Your task to perform on an android device: uninstall "Pandora - Music & Podcasts" Image 0: 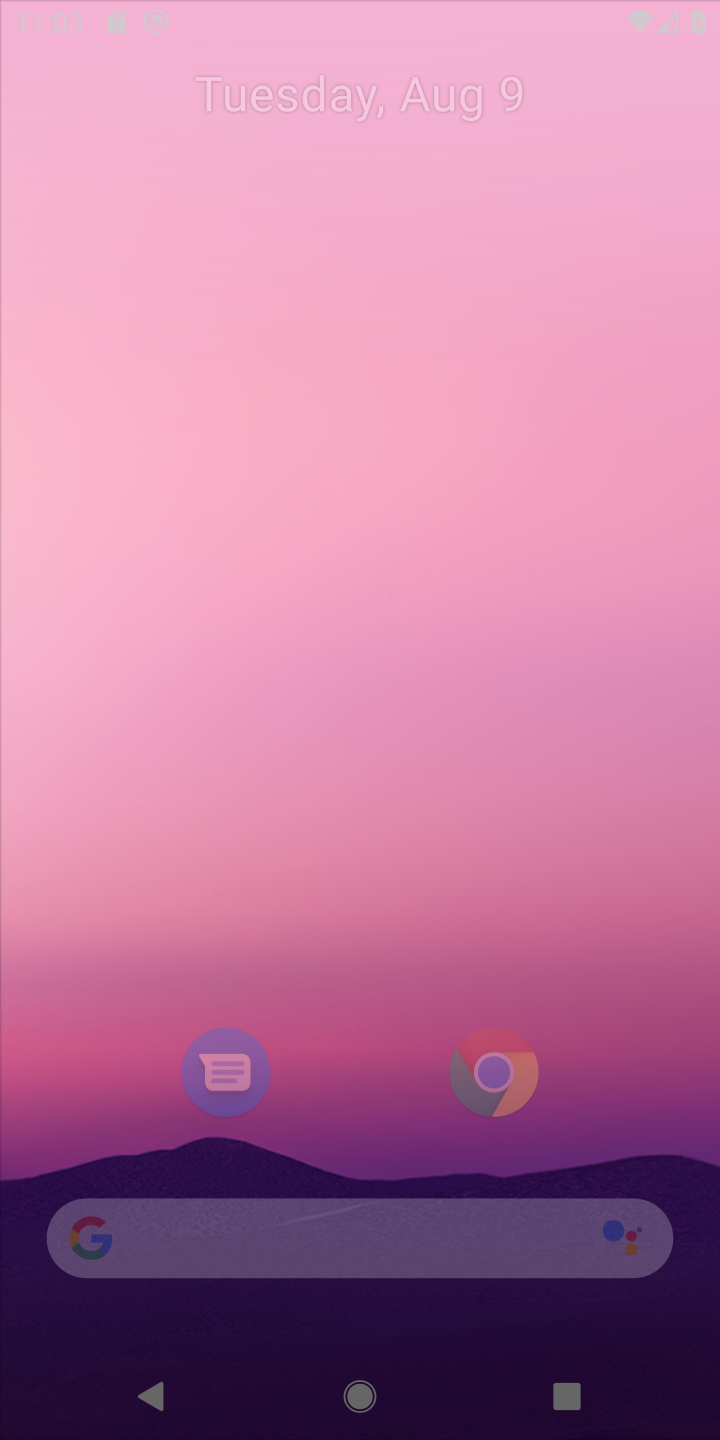
Step 0: click (404, 531)
Your task to perform on an android device: uninstall "Pandora - Music & Podcasts" Image 1: 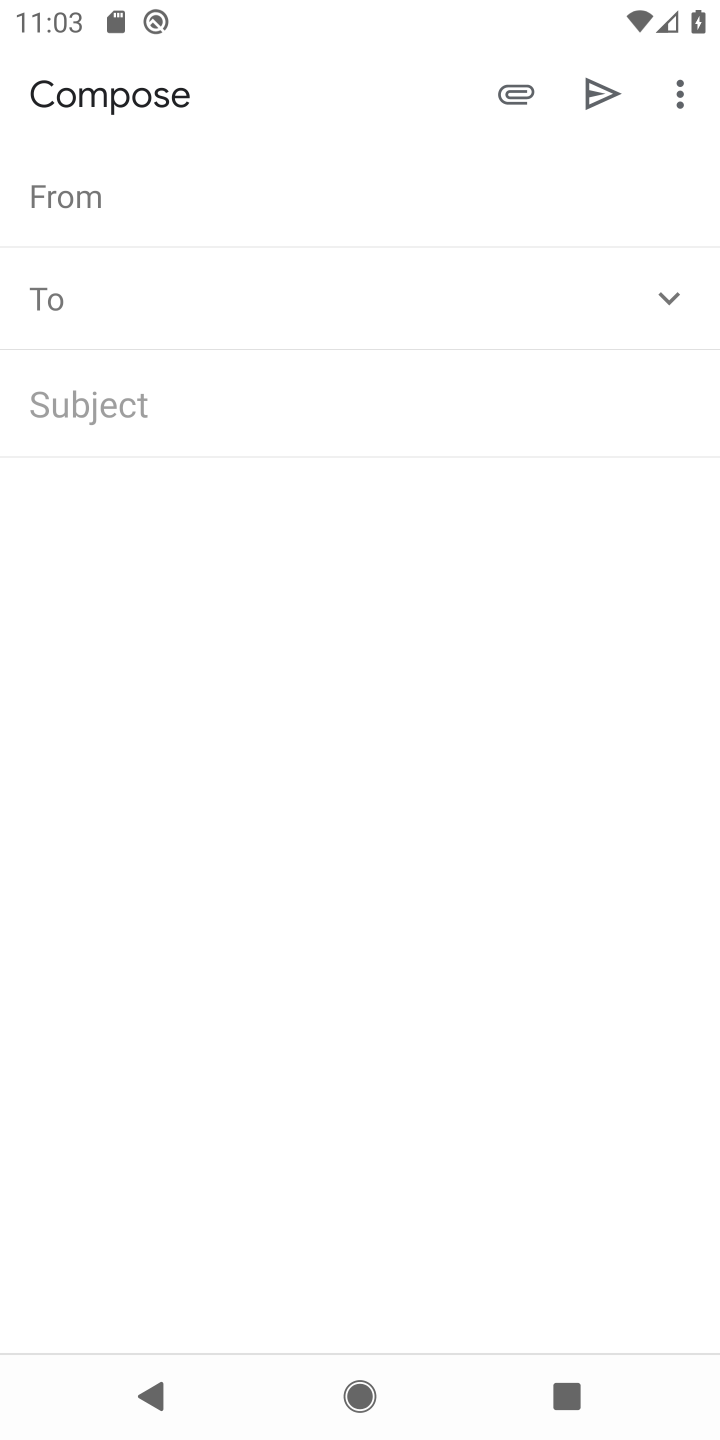
Step 1: press home button
Your task to perform on an android device: uninstall "Pandora - Music & Podcasts" Image 2: 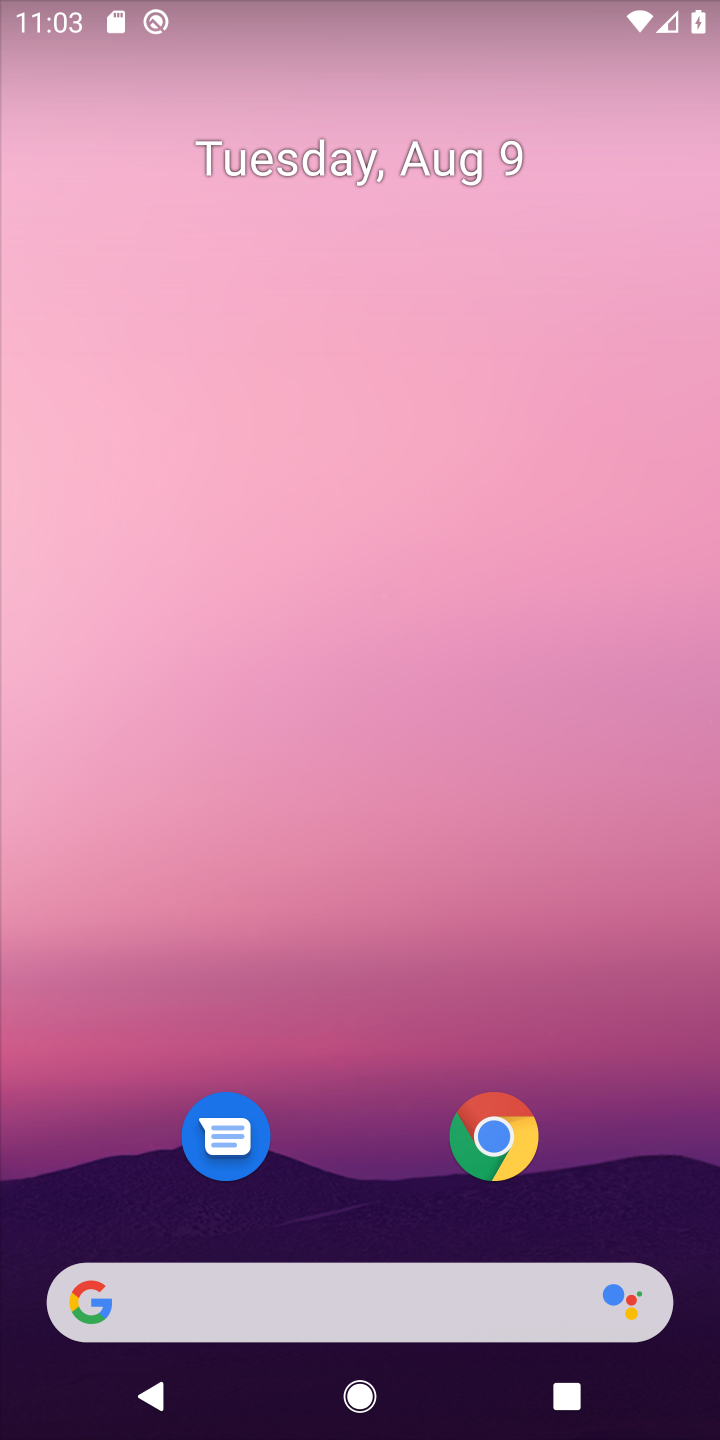
Step 2: drag from (350, 1088) to (413, 154)
Your task to perform on an android device: uninstall "Pandora - Music & Podcasts" Image 3: 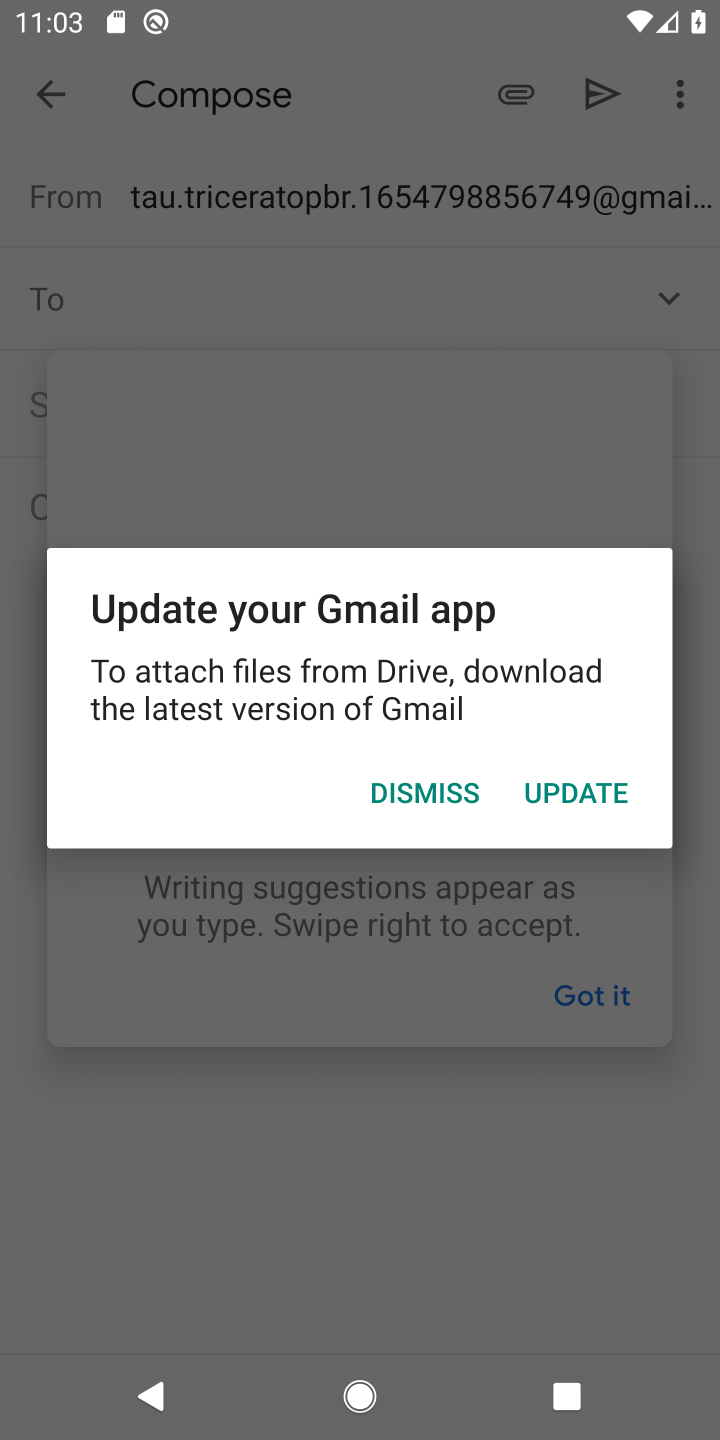
Step 3: press home button
Your task to perform on an android device: uninstall "Pandora - Music & Podcasts" Image 4: 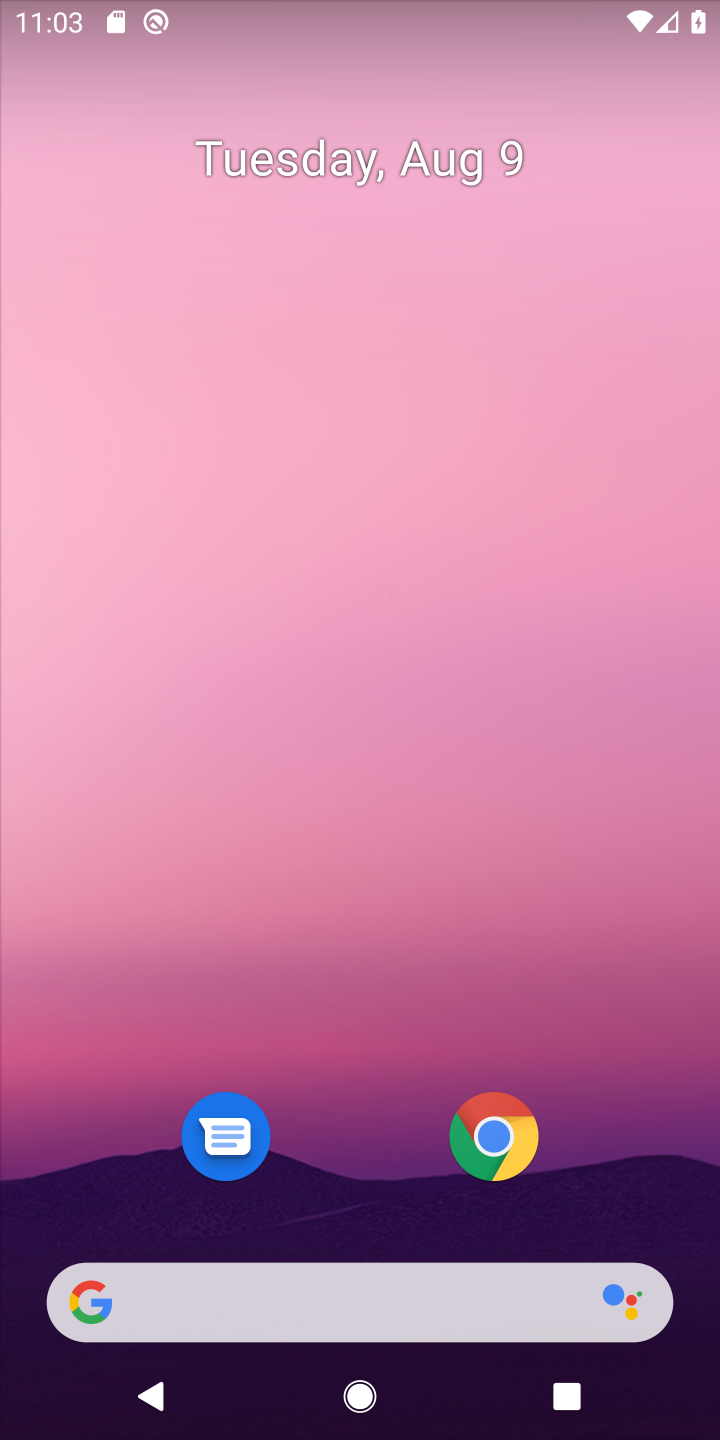
Step 4: drag from (335, 1196) to (363, 703)
Your task to perform on an android device: uninstall "Pandora - Music & Podcasts" Image 5: 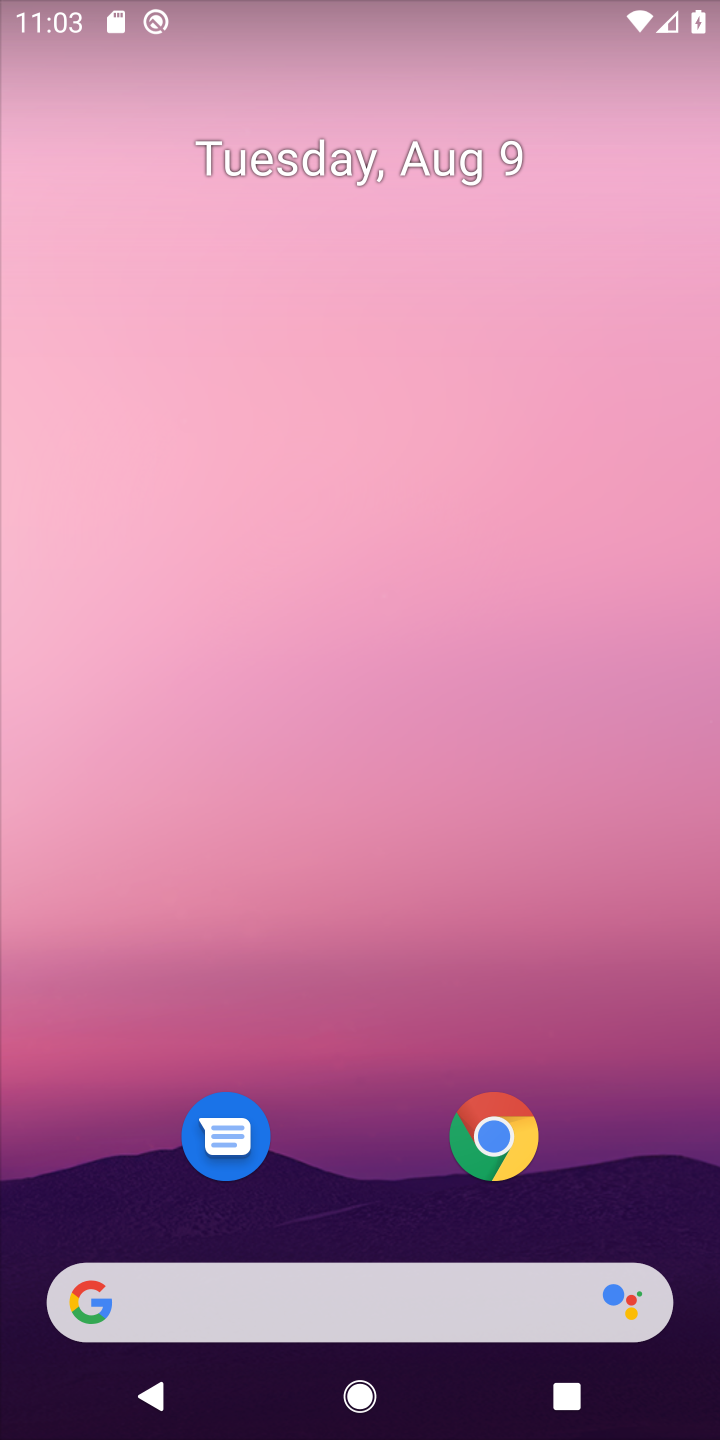
Step 5: drag from (367, 1226) to (483, 132)
Your task to perform on an android device: uninstall "Pandora - Music & Podcasts" Image 6: 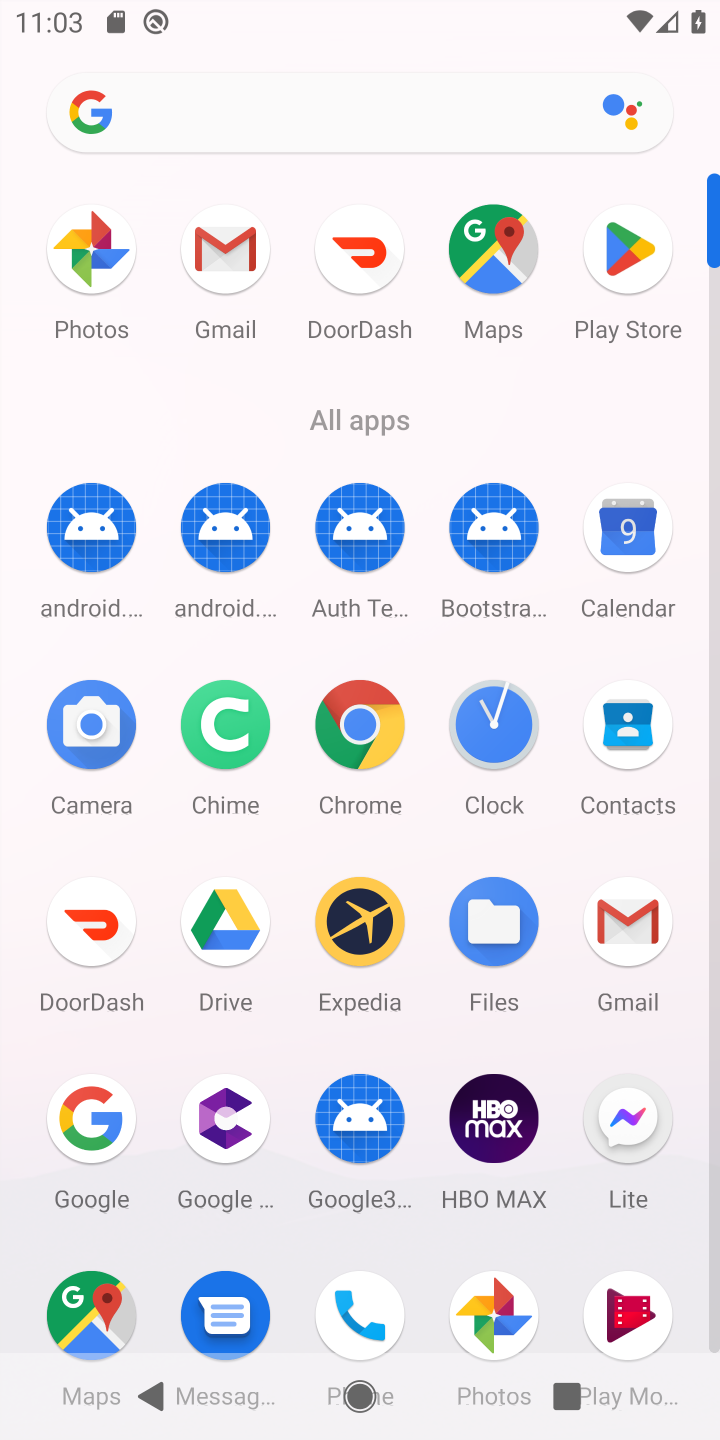
Step 6: click (637, 270)
Your task to perform on an android device: uninstall "Pandora - Music & Podcasts" Image 7: 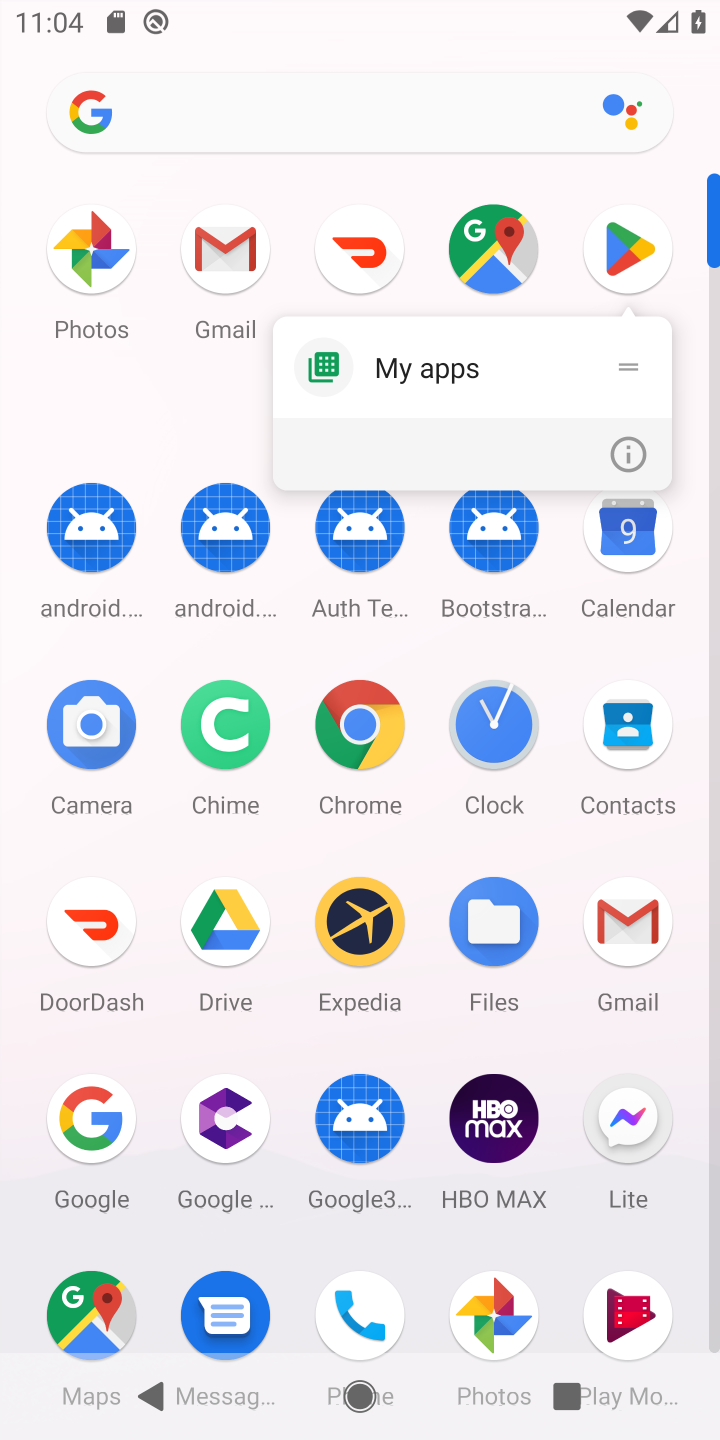
Step 7: click (639, 272)
Your task to perform on an android device: uninstall "Pandora - Music & Podcasts" Image 8: 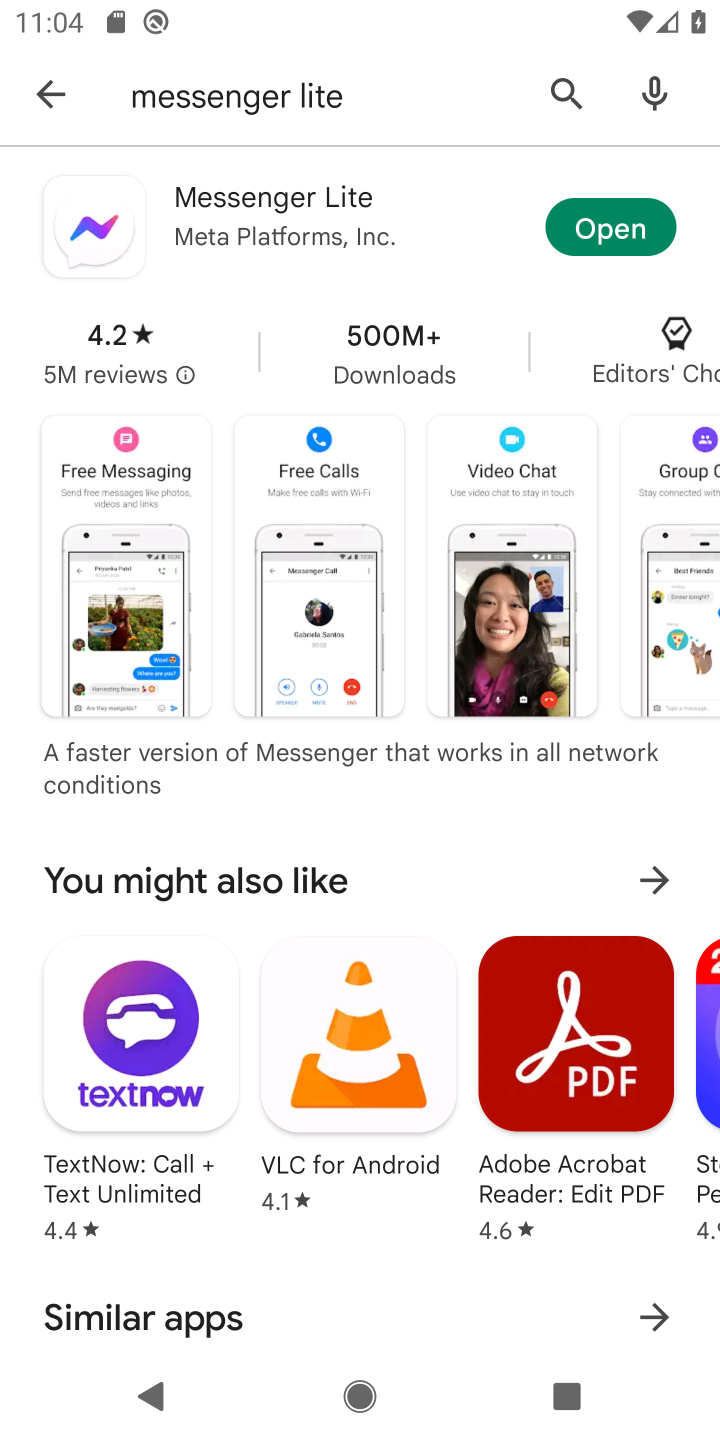
Step 8: click (358, 101)
Your task to perform on an android device: uninstall "Pandora - Music & Podcasts" Image 9: 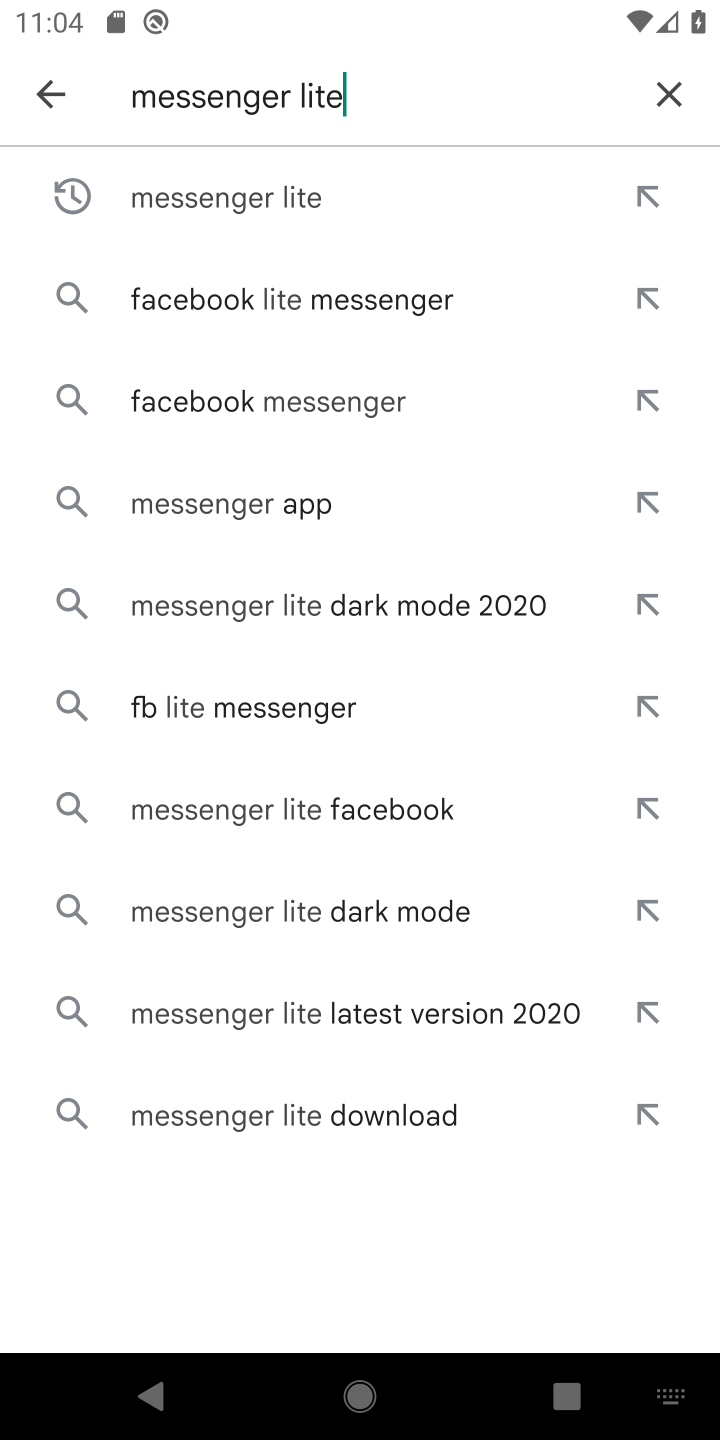
Step 9: click (677, 96)
Your task to perform on an android device: uninstall "Pandora - Music & Podcasts" Image 10: 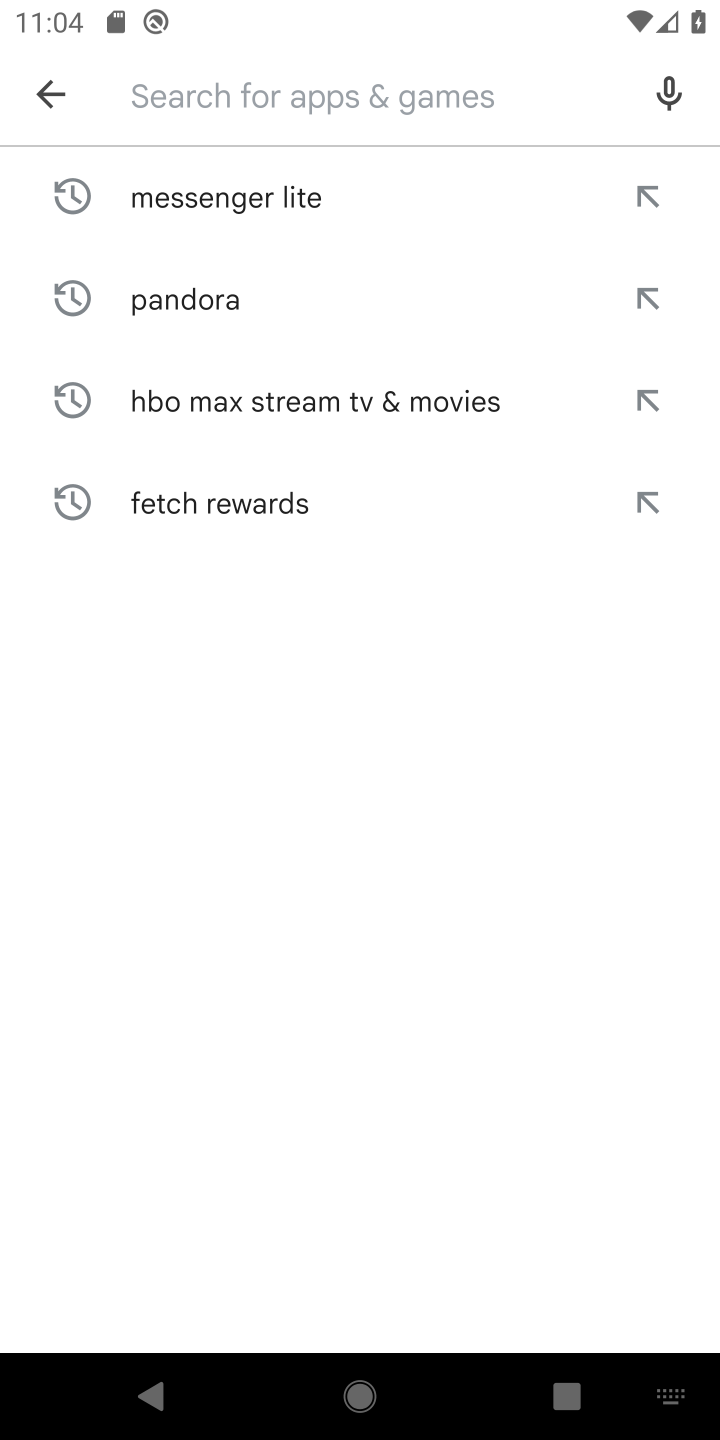
Step 10: type "pandora"
Your task to perform on an android device: uninstall "Pandora - Music & Podcasts" Image 11: 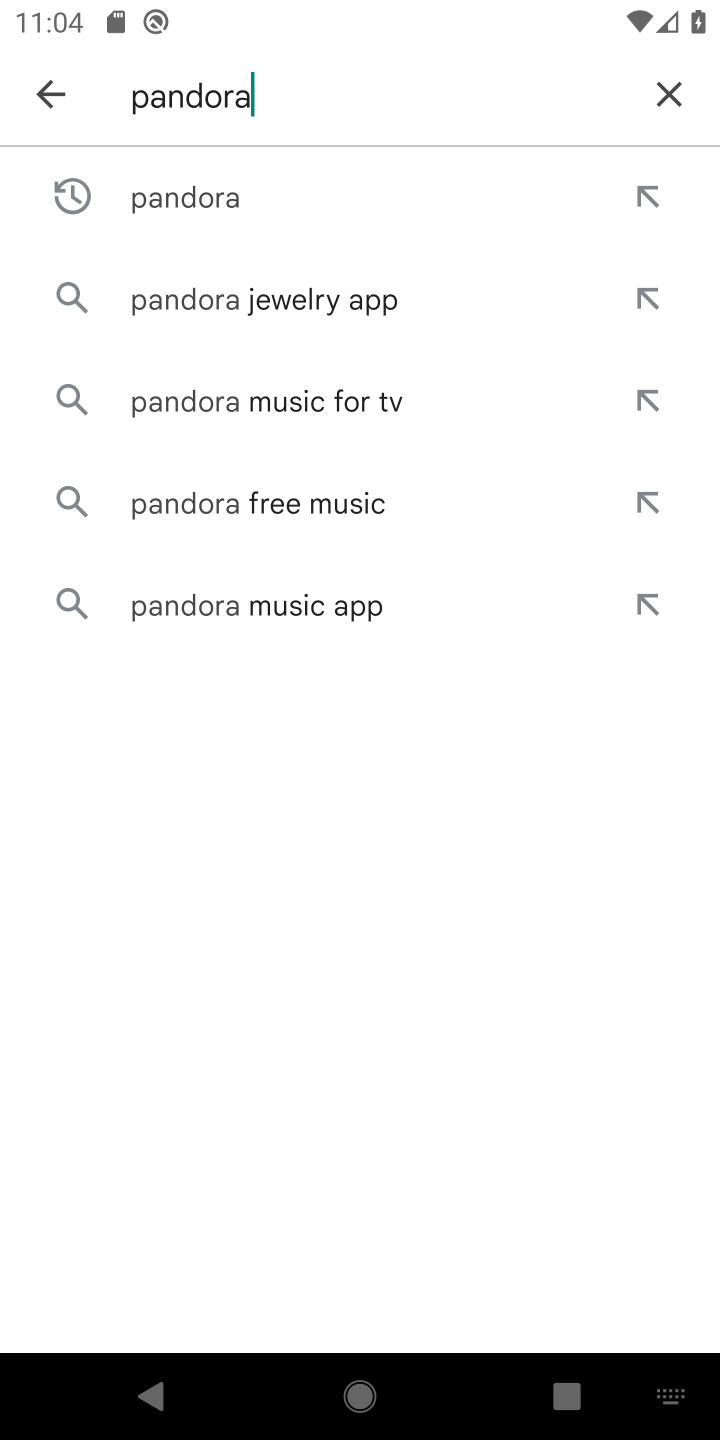
Step 11: click (220, 196)
Your task to perform on an android device: uninstall "Pandora - Music & Podcasts" Image 12: 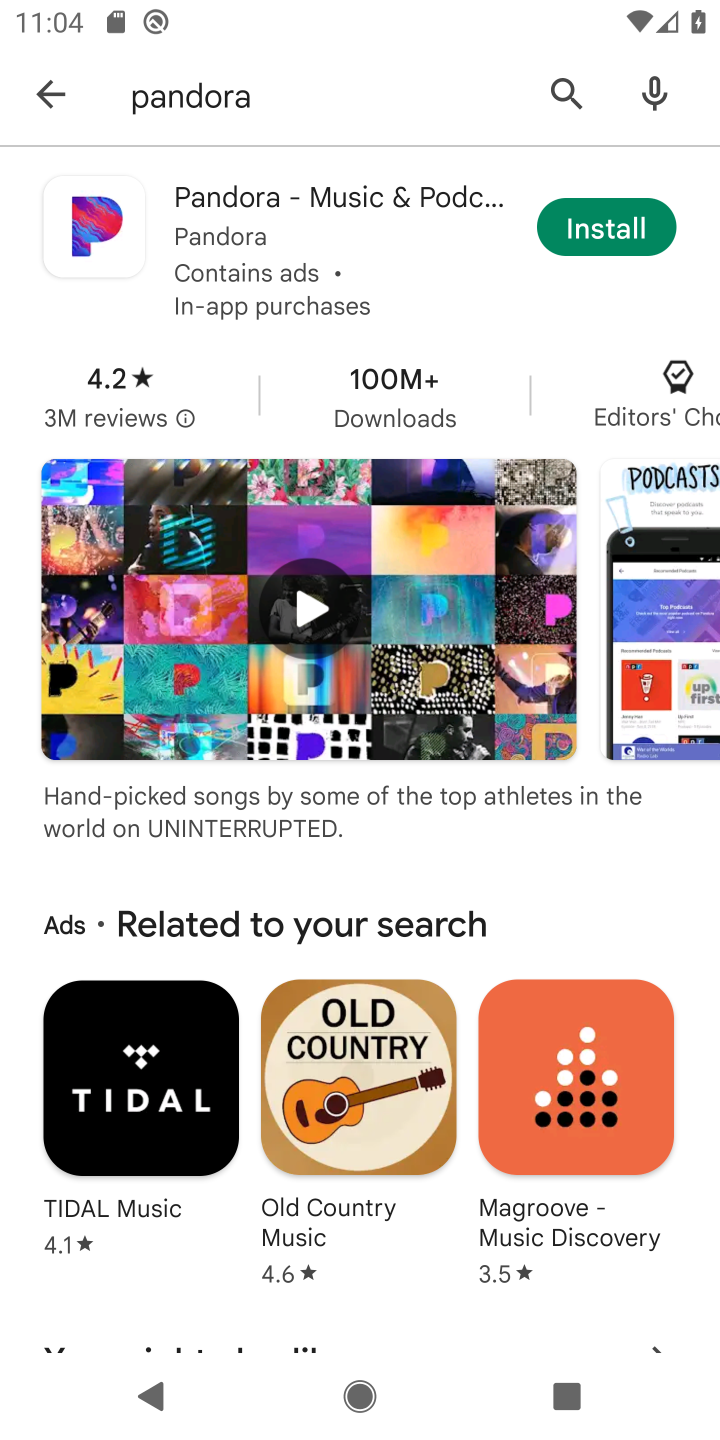
Step 12: task complete